Your task to perform on an android device: Go to notification settings Image 0: 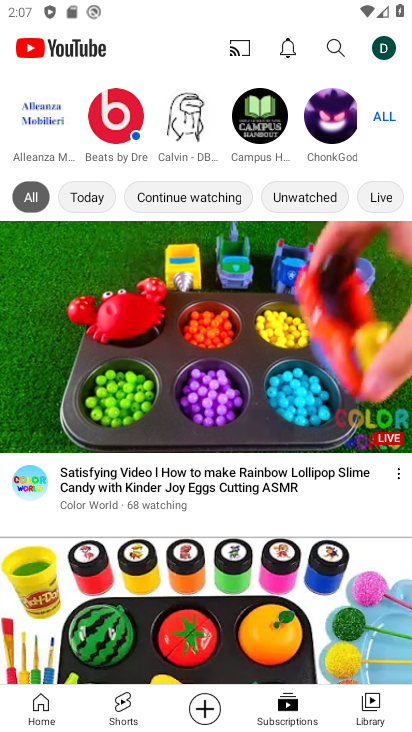
Step 0: press home button
Your task to perform on an android device: Go to notification settings Image 1: 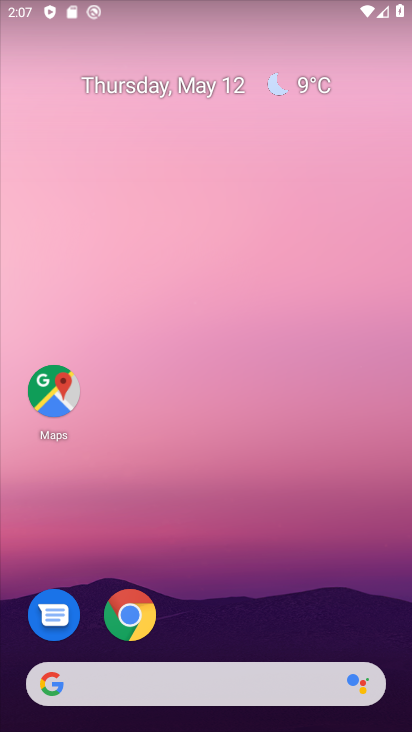
Step 1: drag from (205, 679) to (218, 136)
Your task to perform on an android device: Go to notification settings Image 2: 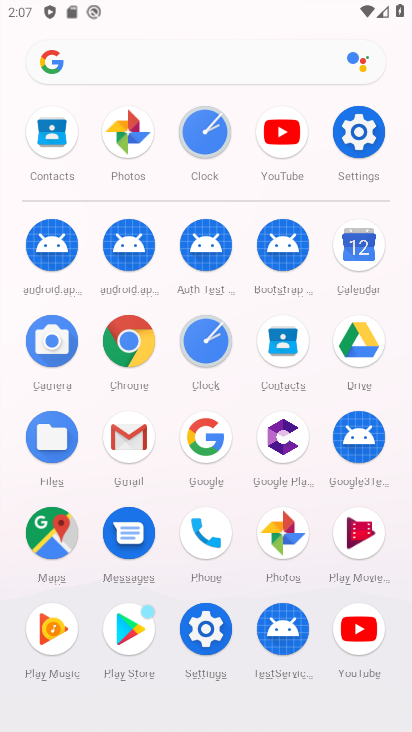
Step 2: click (378, 132)
Your task to perform on an android device: Go to notification settings Image 3: 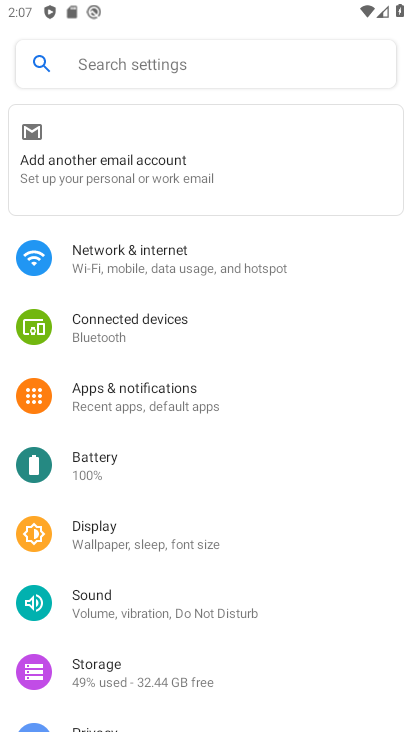
Step 3: click (183, 401)
Your task to perform on an android device: Go to notification settings Image 4: 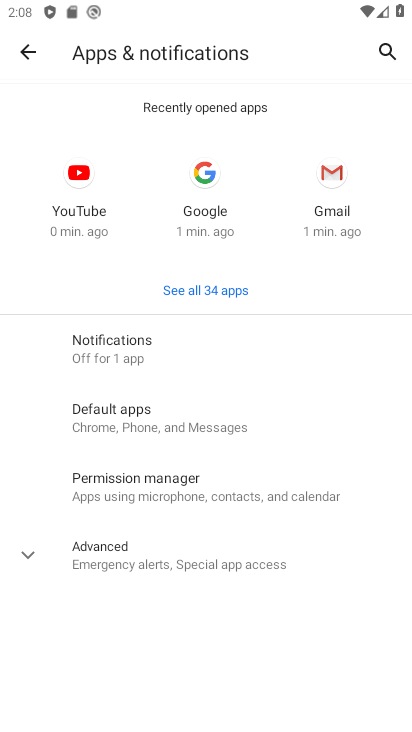
Step 4: click (190, 565)
Your task to perform on an android device: Go to notification settings Image 5: 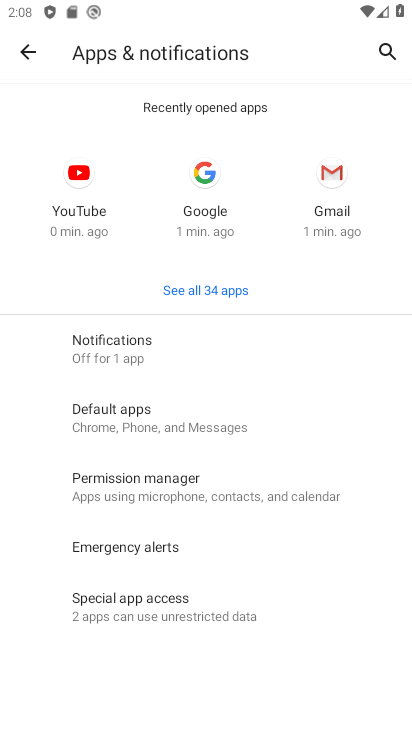
Step 5: task complete